Your task to perform on an android device: Open notification settings Image 0: 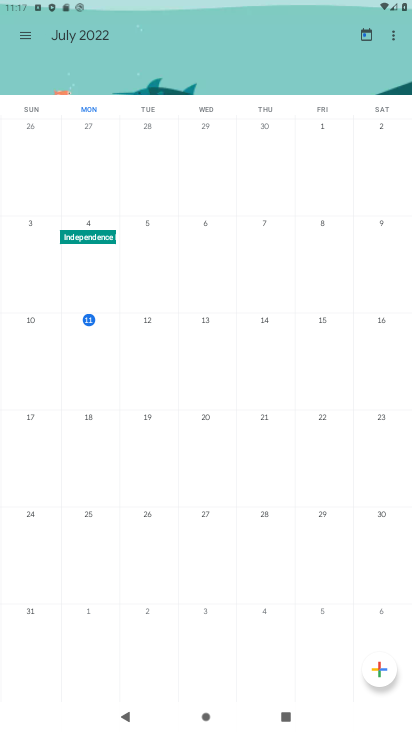
Step 0: press home button
Your task to perform on an android device: Open notification settings Image 1: 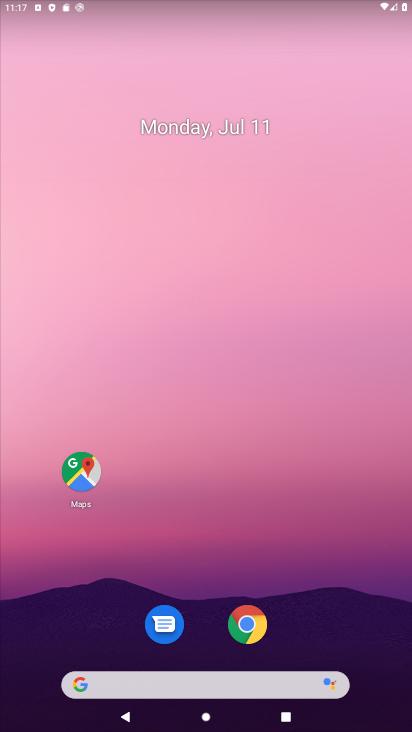
Step 1: drag from (215, 642) to (215, 109)
Your task to perform on an android device: Open notification settings Image 2: 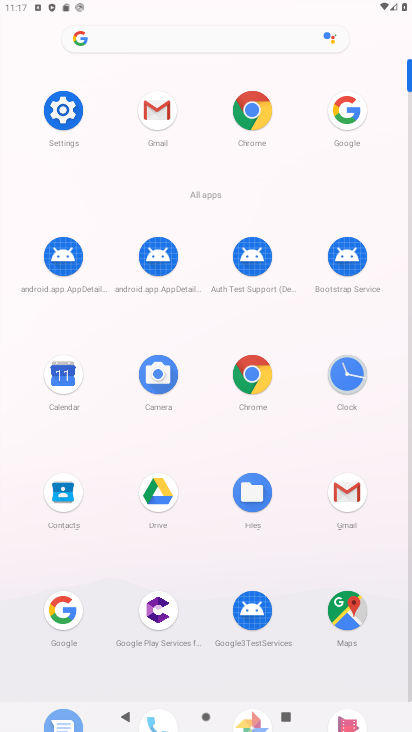
Step 2: click (79, 110)
Your task to perform on an android device: Open notification settings Image 3: 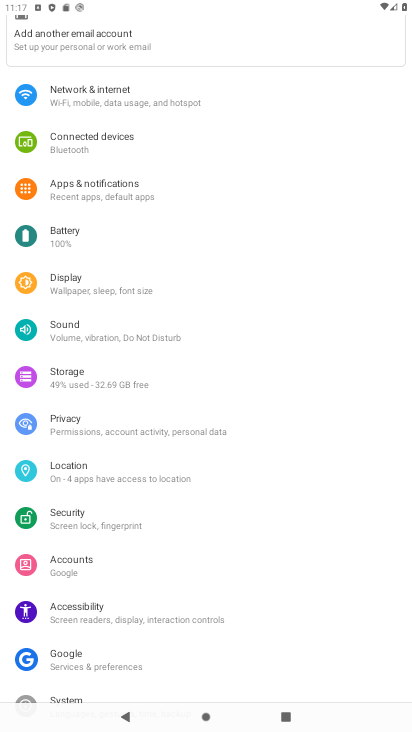
Step 3: click (150, 195)
Your task to perform on an android device: Open notification settings Image 4: 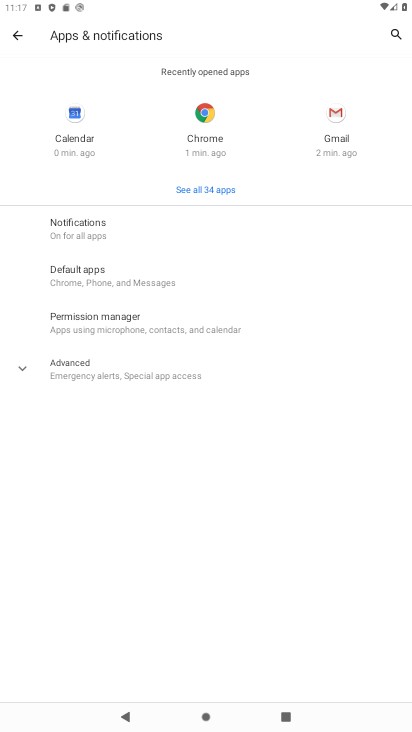
Step 4: click (130, 236)
Your task to perform on an android device: Open notification settings Image 5: 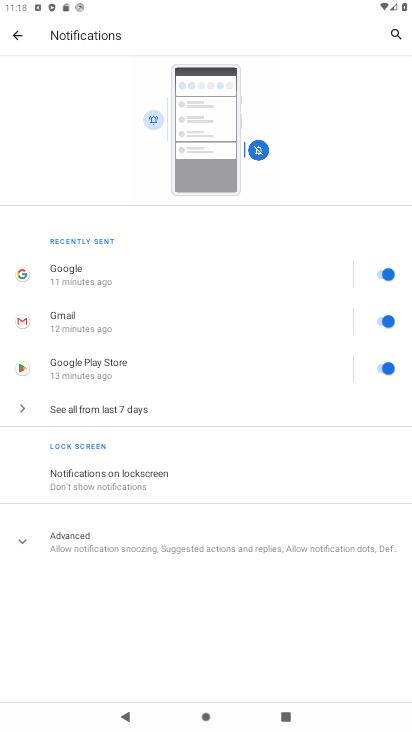
Step 5: task complete